Your task to perform on an android device: Go to CNN.com Image 0: 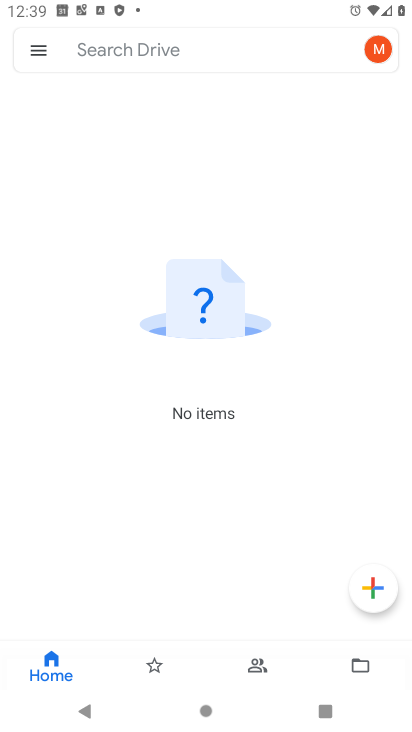
Step 0: press home button
Your task to perform on an android device: Go to CNN.com Image 1: 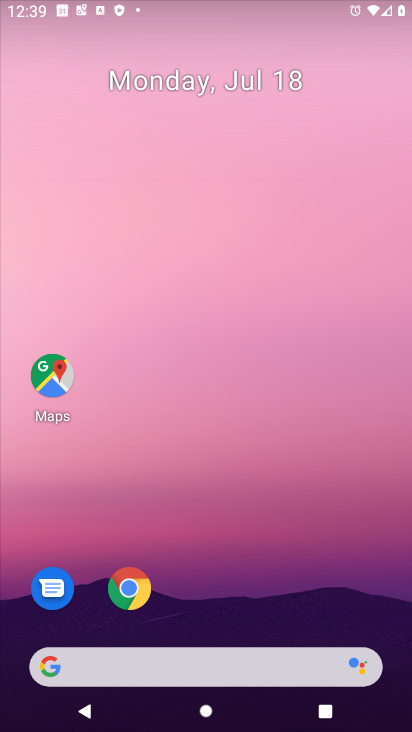
Step 1: drag from (259, 711) to (282, 255)
Your task to perform on an android device: Go to CNN.com Image 2: 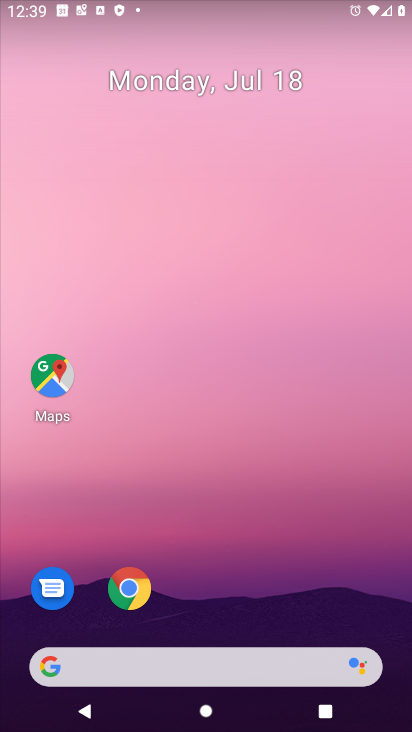
Step 2: click (137, 592)
Your task to perform on an android device: Go to CNN.com Image 3: 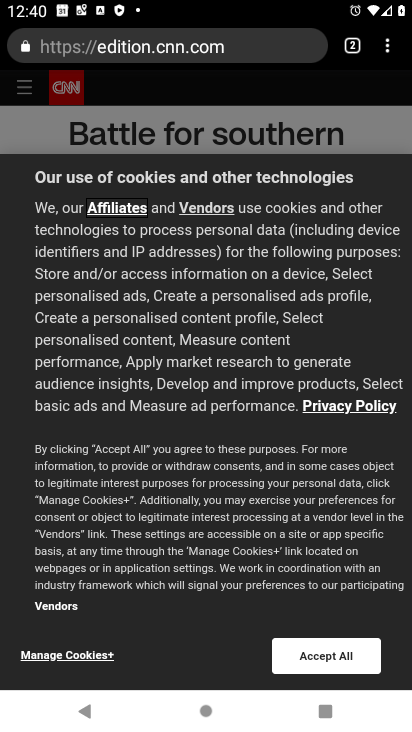
Step 3: task complete